Your task to perform on an android device: open chrome and create a bookmark for the current page Image 0: 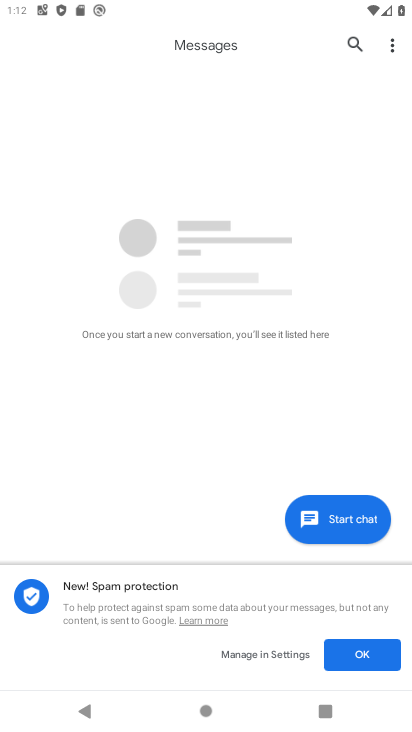
Step 0: press home button
Your task to perform on an android device: open chrome and create a bookmark for the current page Image 1: 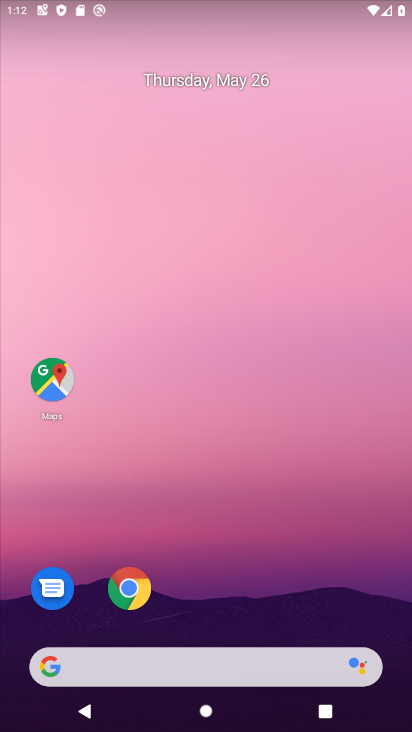
Step 1: click (121, 586)
Your task to perform on an android device: open chrome and create a bookmark for the current page Image 2: 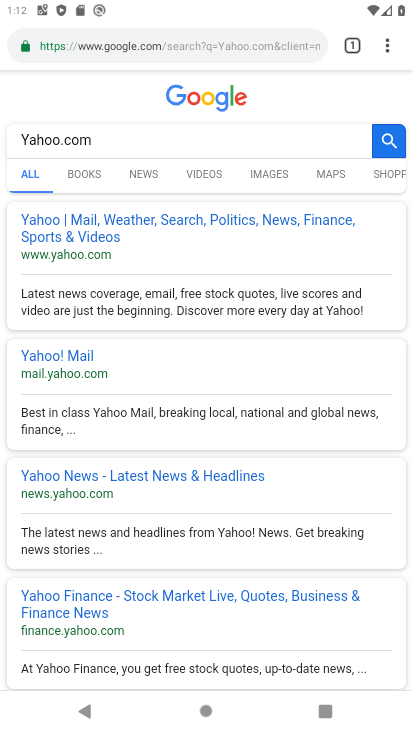
Step 2: click (386, 45)
Your task to perform on an android device: open chrome and create a bookmark for the current page Image 3: 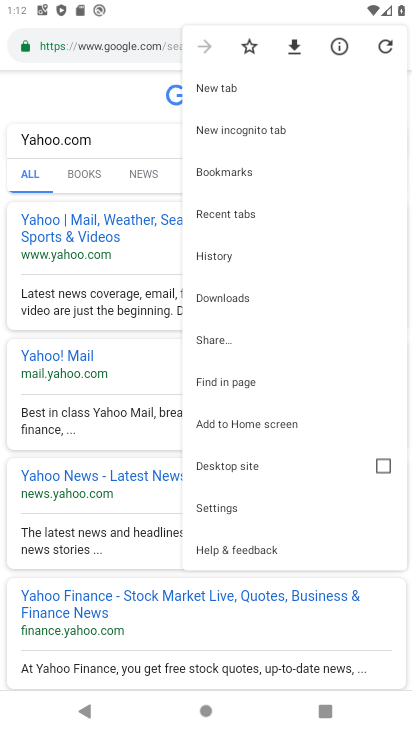
Step 3: click (241, 43)
Your task to perform on an android device: open chrome and create a bookmark for the current page Image 4: 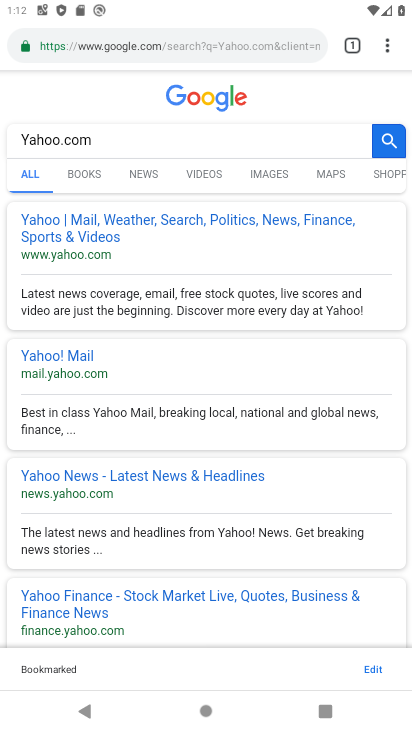
Step 4: task complete